Your task to perform on an android device: check storage Image 0: 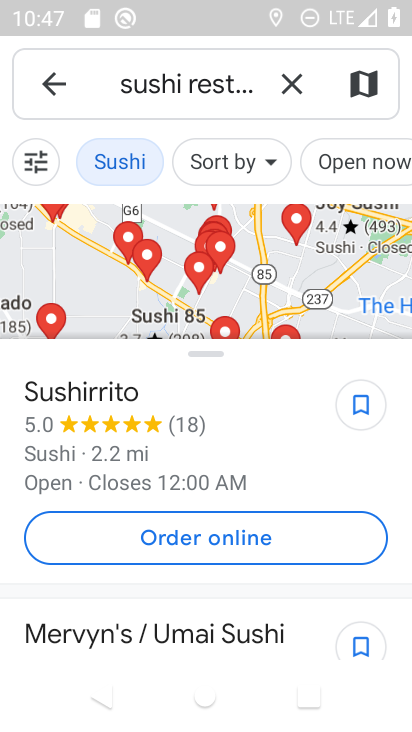
Step 0: press home button
Your task to perform on an android device: check storage Image 1: 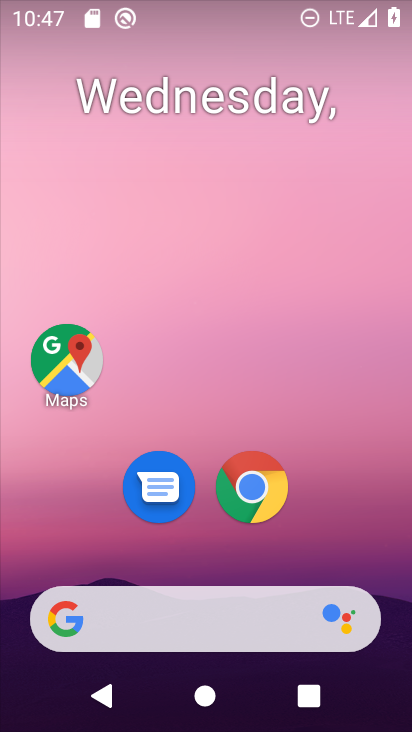
Step 1: drag from (326, 496) to (69, 8)
Your task to perform on an android device: check storage Image 2: 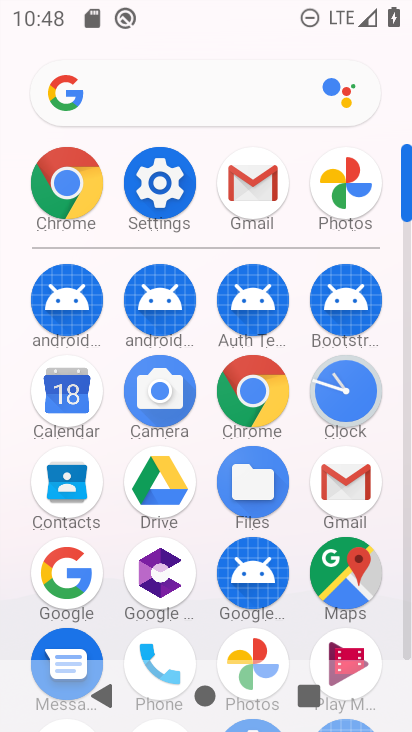
Step 2: click (166, 189)
Your task to perform on an android device: check storage Image 3: 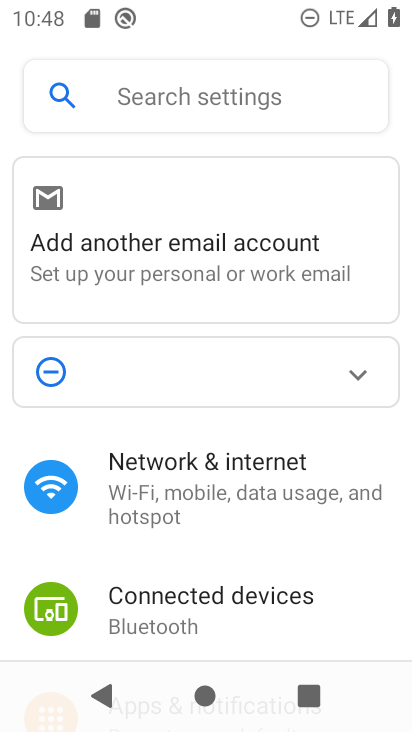
Step 3: drag from (220, 504) to (169, 192)
Your task to perform on an android device: check storage Image 4: 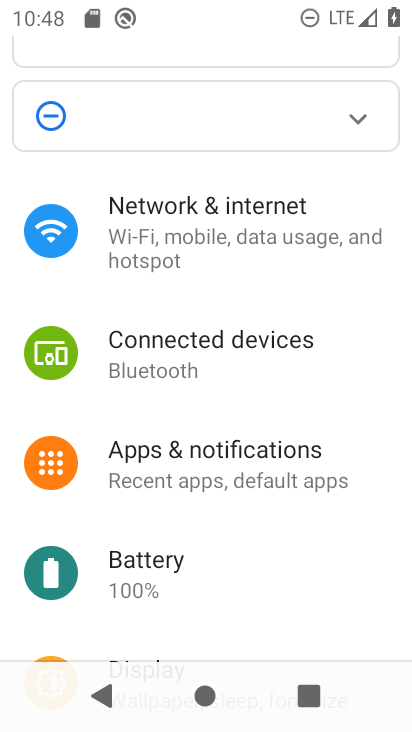
Step 4: drag from (201, 533) to (169, 156)
Your task to perform on an android device: check storage Image 5: 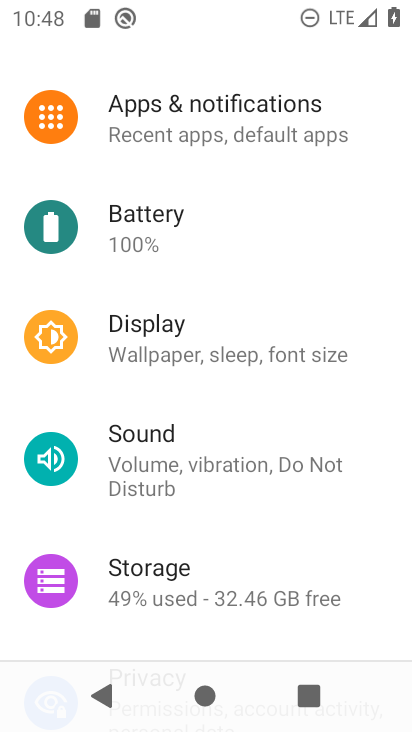
Step 5: click (157, 563)
Your task to perform on an android device: check storage Image 6: 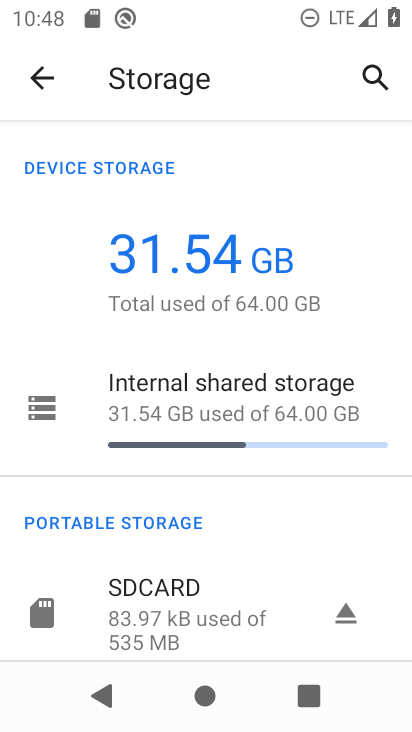
Step 6: task complete